Your task to perform on an android device: Open the stopwatch Image 0: 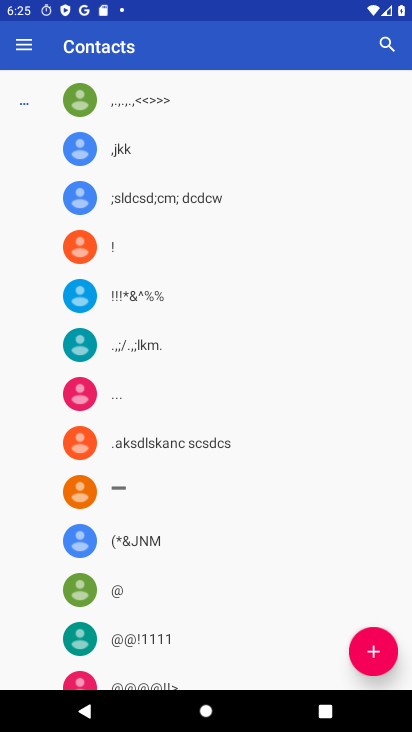
Step 0: press home button
Your task to perform on an android device: Open the stopwatch Image 1: 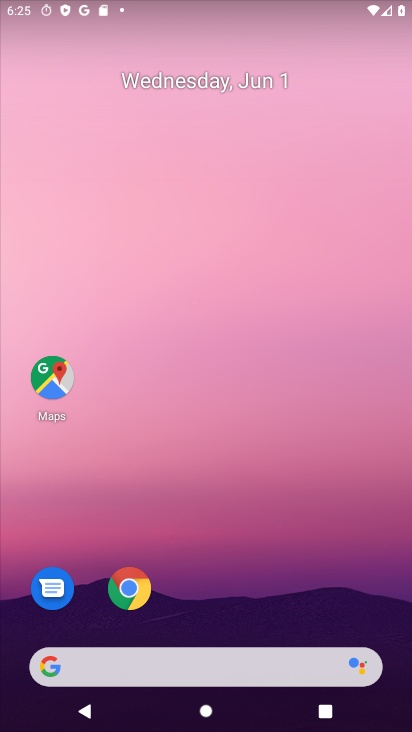
Step 1: drag from (217, 620) to (216, 229)
Your task to perform on an android device: Open the stopwatch Image 2: 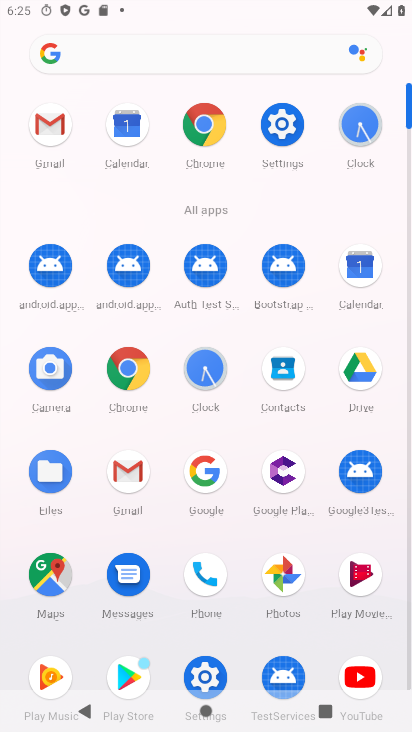
Step 2: click (211, 384)
Your task to perform on an android device: Open the stopwatch Image 3: 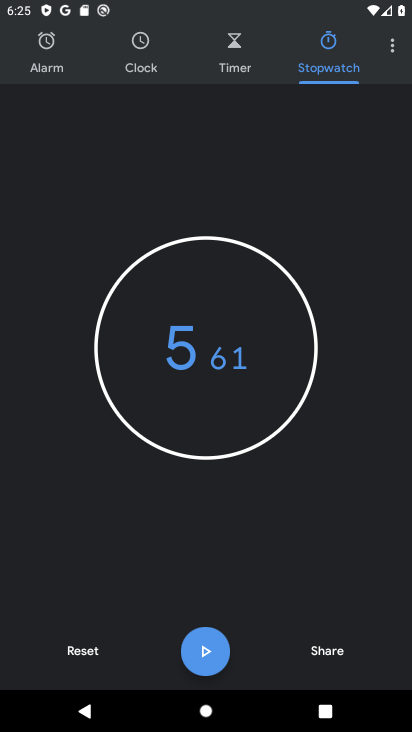
Step 3: task complete